Your task to perform on an android device: Turn on the flashlight Image 0: 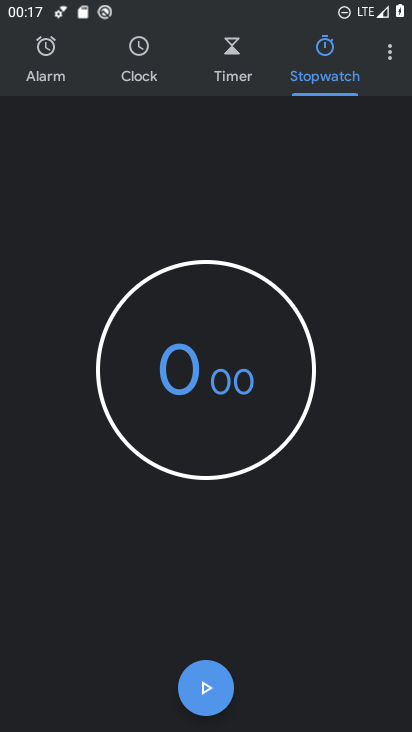
Step 0: press home button
Your task to perform on an android device: Turn on the flashlight Image 1: 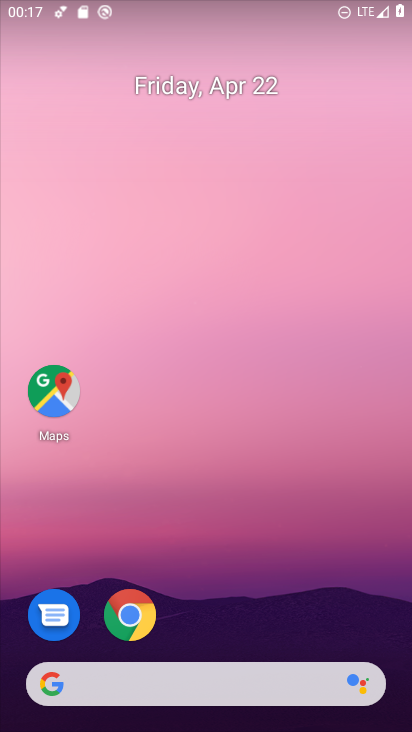
Step 1: drag from (216, 652) to (237, 26)
Your task to perform on an android device: Turn on the flashlight Image 2: 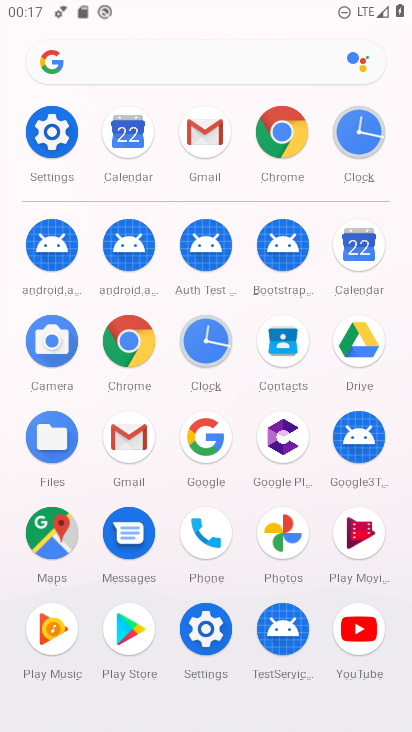
Step 2: click (202, 619)
Your task to perform on an android device: Turn on the flashlight Image 3: 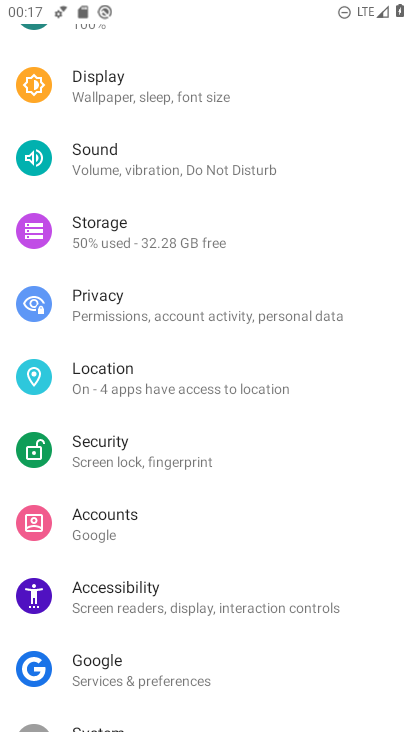
Step 3: drag from (183, 109) to (170, 621)
Your task to perform on an android device: Turn on the flashlight Image 4: 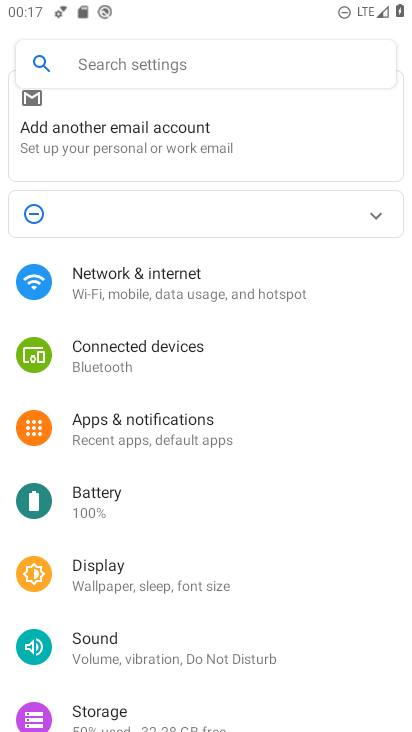
Step 4: click (172, 56)
Your task to perform on an android device: Turn on the flashlight Image 5: 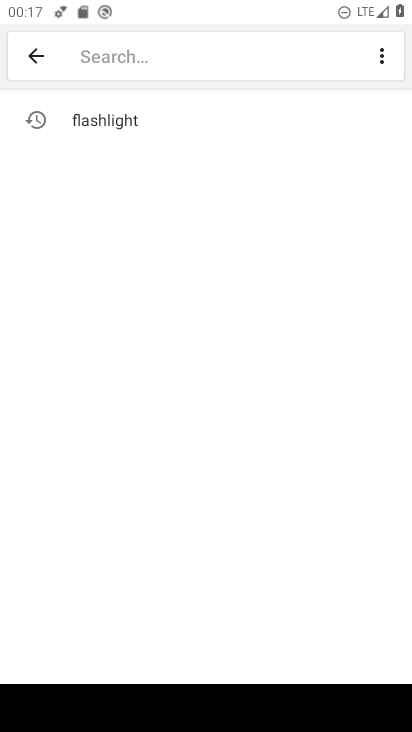
Step 5: click (150, 122)
Your task to perform on an android device: Turn on the flashlight Image 6: 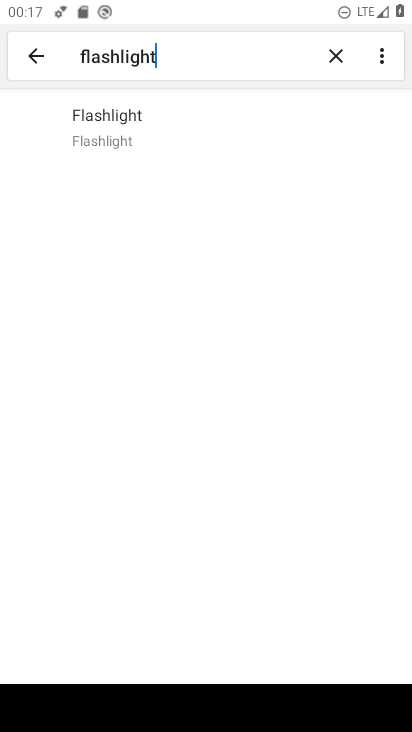
Step 6: click (140, 126)
Your task to perform on an android device: Turn on the flashlight Image 7: 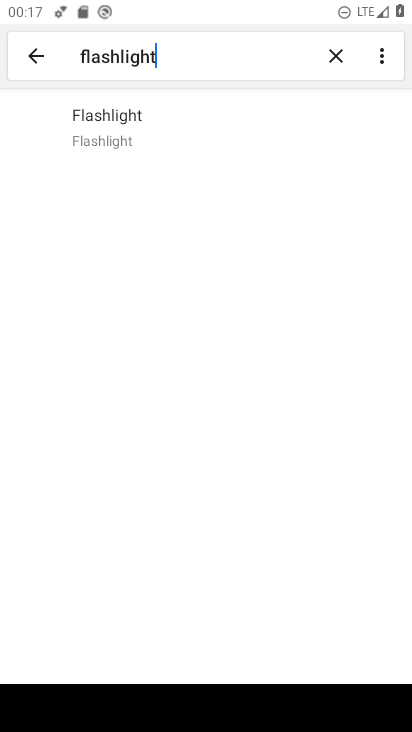
Step 7: task complete